Your task to perform on an android device: Open settings on Google Maps Image 0: 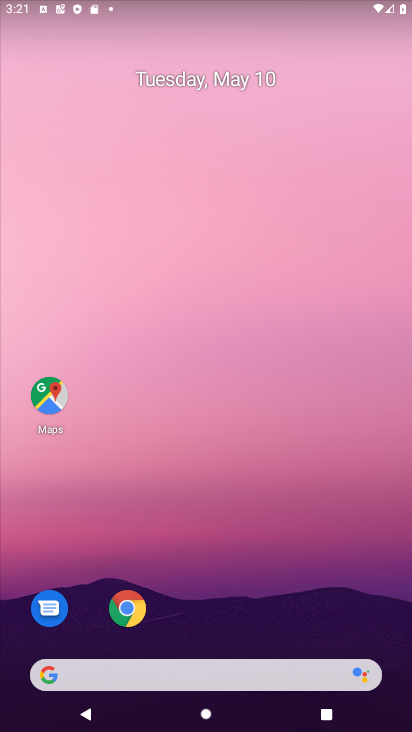
Step 0: click (53, 396)
Your task to perform on an android device: Open settings on Google Maps Image 1: 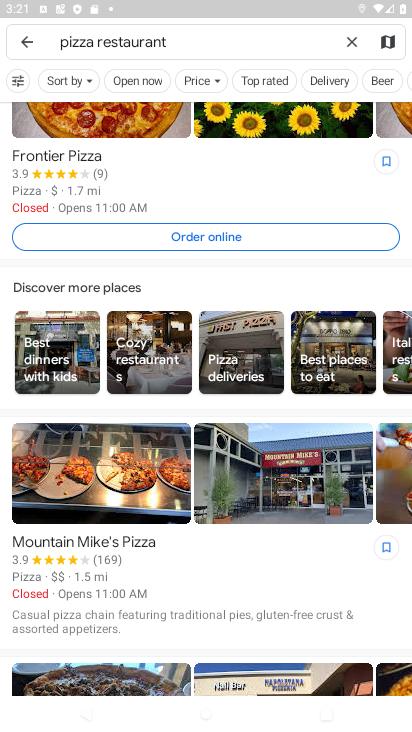
Step 1: click (348, 40)
Your task to perform on an android device: Open settings on Google Maps Image 2: 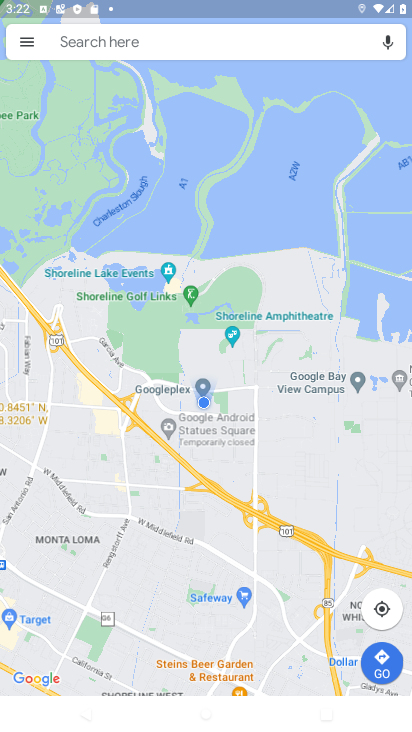
Step 2: click (26, 41)
Your task to perform on an android device: Open settings on Google Maps Image 3: 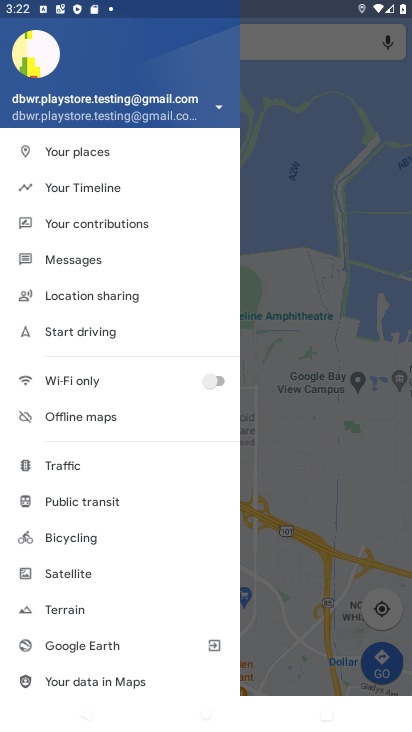
Step 3: drag from (144, 623) to (171, 227)
Your task to perform on an android device: Open settings on Google Maps Image 4: 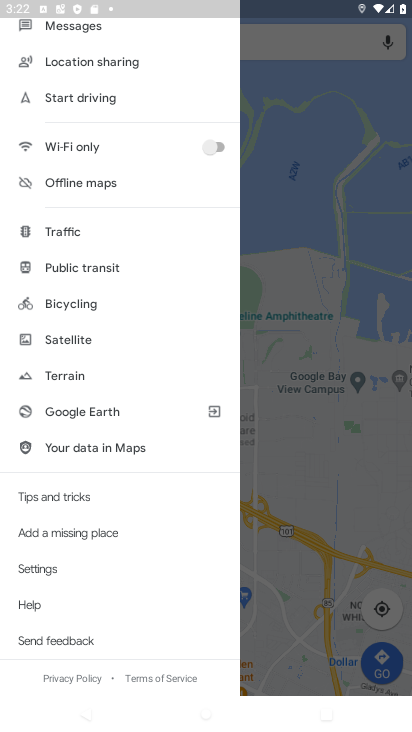
Step 4: click (32, 565)
Your task to perform on an android device: Open settings on Google Maps Image 5: 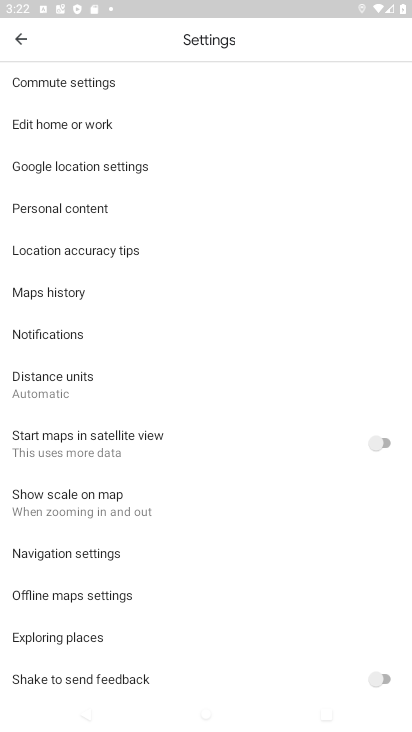
Step 5: task complete